Your task to perform on an android device: Open maps Image 0: 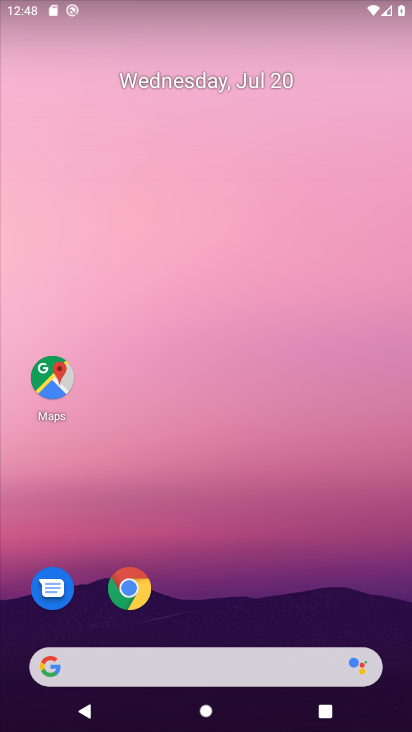
Step 0: drag from (202, 542) to (213, 179)
Your task to perform on an android device: Open maps Image 1: 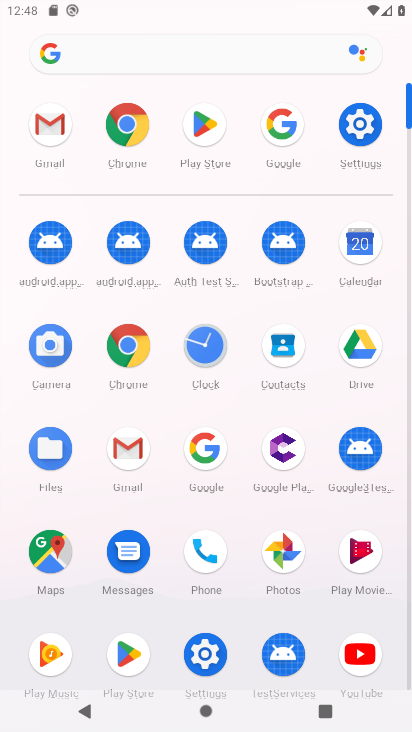
Step 1: click (33, 549)
Your task to perform on an android device: Open maps Image 2: 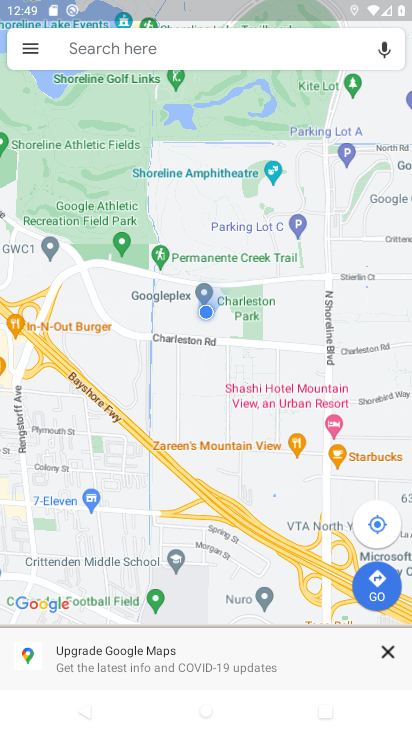
Step 2: task complete